Your task to perform on an android device: Show me popular games on the Play Store Image 0: 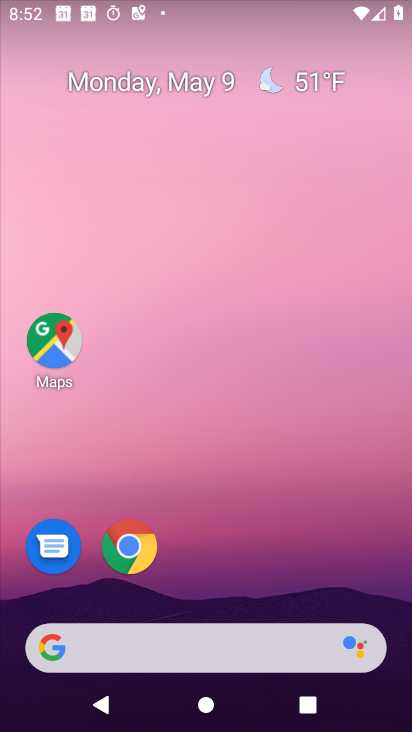
Step 0: drag from (240, 584) to (334, 105)
Your task to perform on an android device: Show me popular games on the Play Store Image 1: 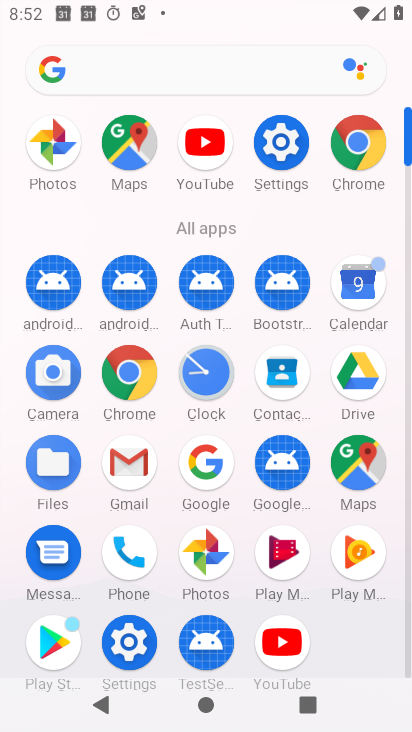
Step 1: drag from (372, 635) to (340, 263)
Your task to perform on an android device: Show me popular games on the Play Store Image 2: 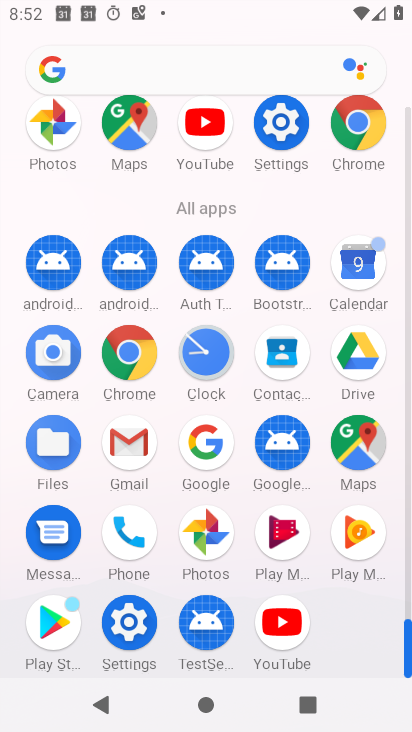
Step 2: click (57, 627)
Your task to perform on an android device: Show me popular games on the Play Store Image 3: 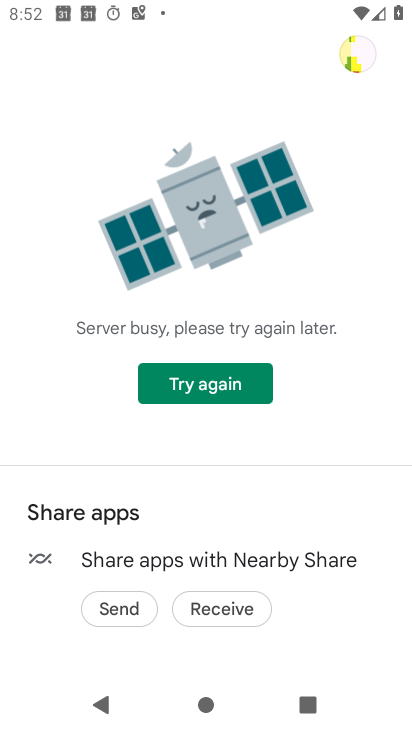
Step 3: click (239, 459)
Your task to perform on an android device: Show me popular games on the Play Store Image 4: 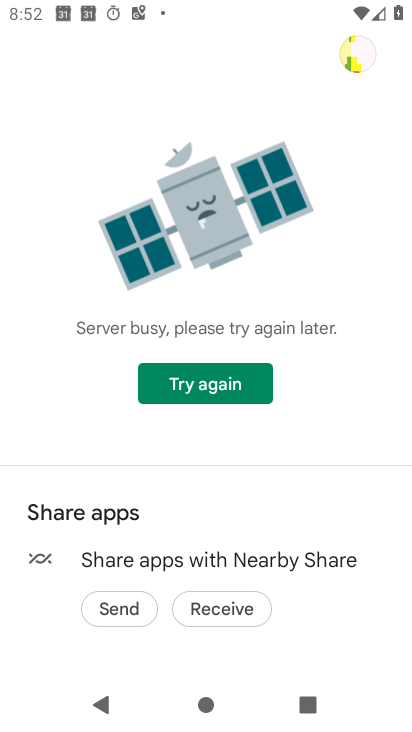
Step 4: click (226, 385)
Your task to perform on an android device: Show me popular games on the Play Store Image 5: 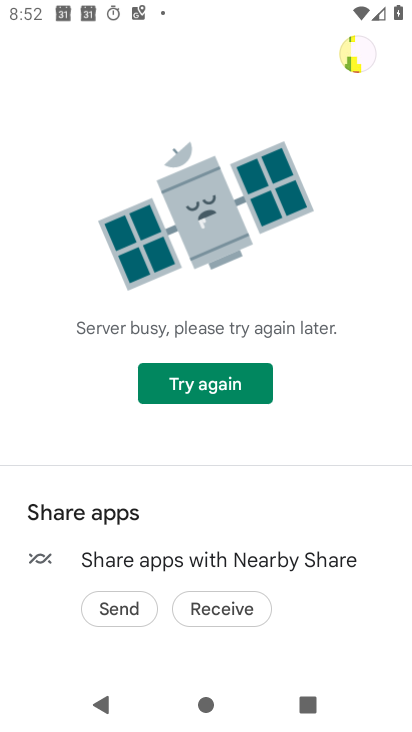
Step 5: task complete